Your task to perform on an android device: stop showing notifications on the lock screen Image 0: 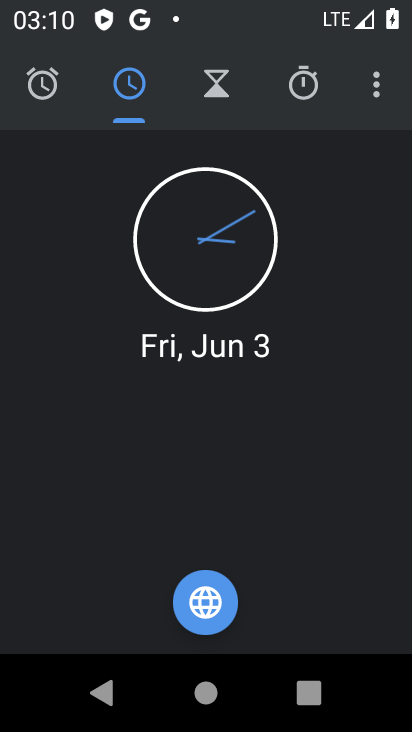
Step 0: press home button
Your task to perform on an android device: stop showing notifications on the lock screen Image 1: 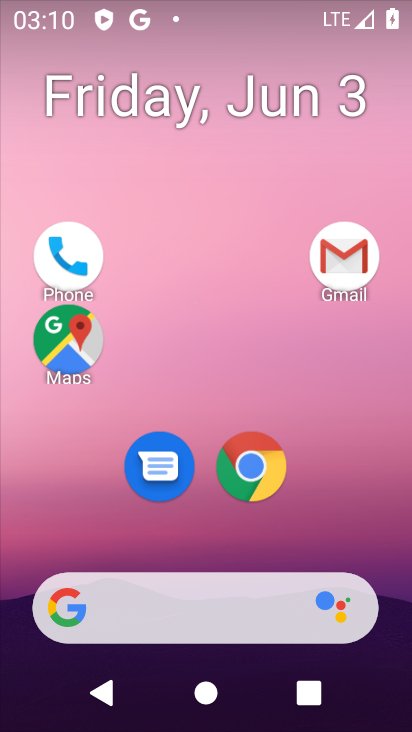
Step 1: drag from (194, 549) to (184, 67)
Your task to perform on an android device: stop showing notifications on the lock screen Image 2: 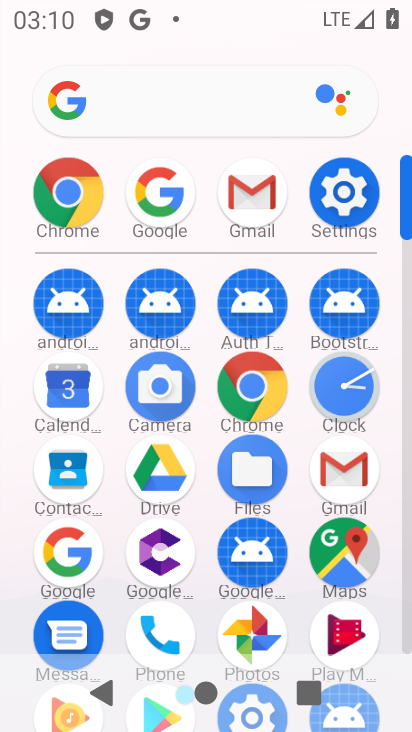
Step 2: click (338, 200)
Your task to perform on an android device: stop showing notifications on the lock screen Image 3: 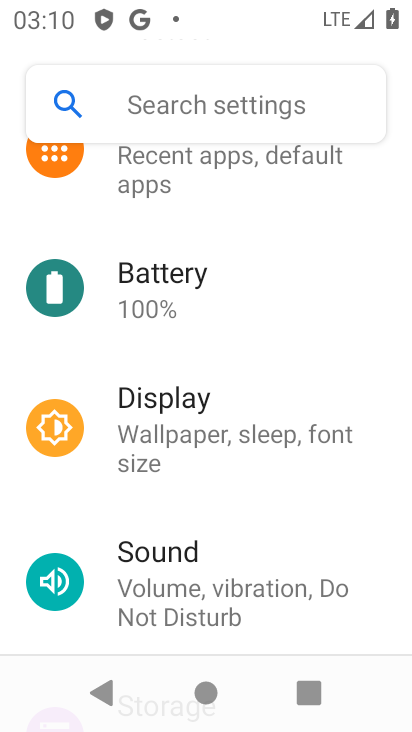
Step 3: drag from (312, 250) to (282, 627)
Your task to perform on an android device: stop showing notifications on the lock screen Image 4: 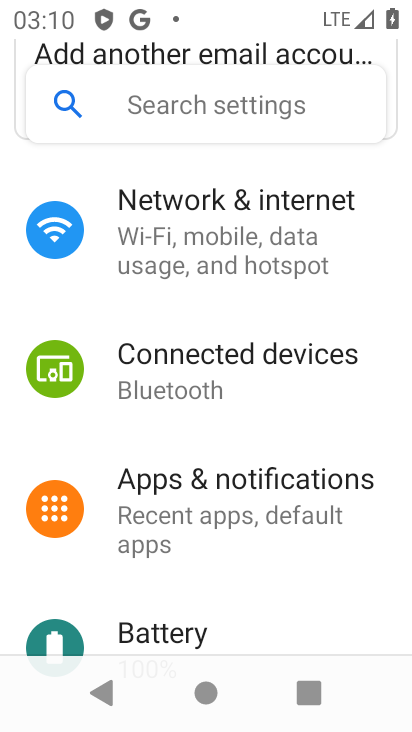
Step 4: click (245, 500)
Your task to perform on an android device: stop showing notifications on the lock screen Image 5: 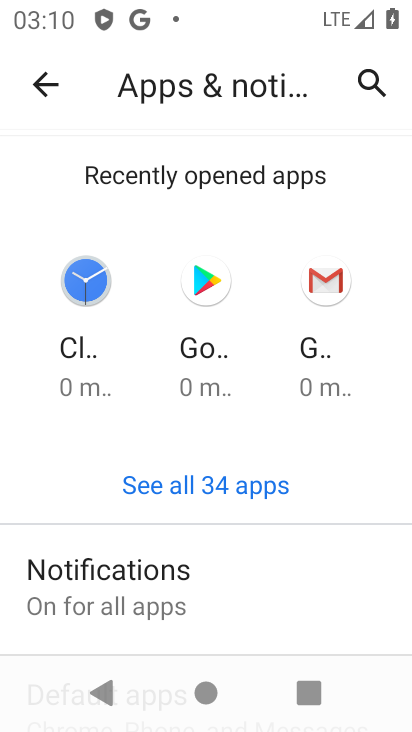
Step 5: click (159, 598)
Your task to perform on an android device: stop showing notifications on the lock screen Image 6: 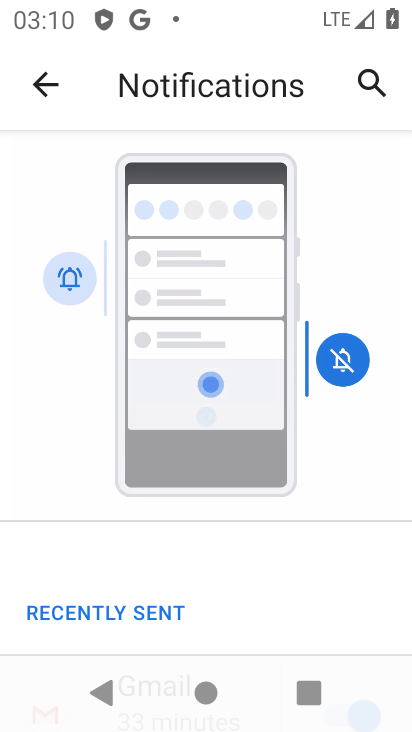
Step 6: drag from (239, 592) to (233, 364)
Your task to perform on an android device: stop showing notifications on the lock screen Image 7: 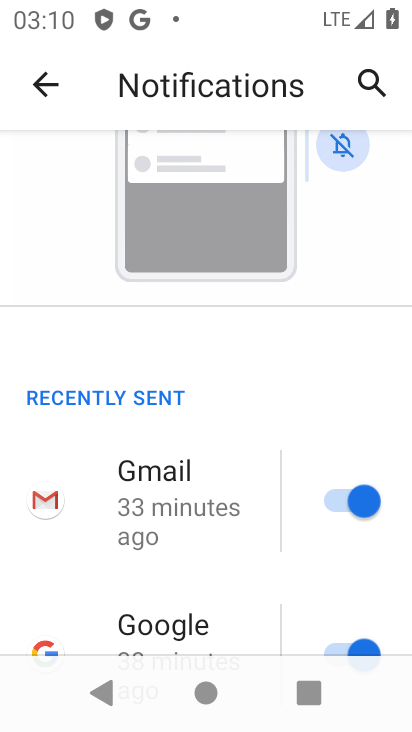
Step 7: drag from (233, 580) to (228, 314)
Your task to perform on an android device: stop showing notifications on the lock screen Image 8: 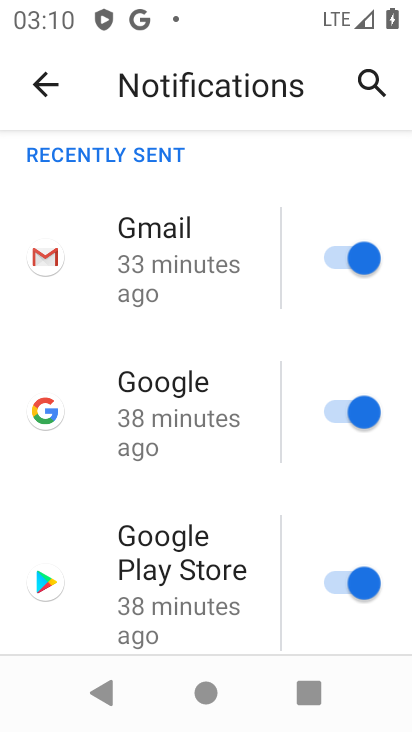
Step 8: drag from (261, 589) to (261, 345)
Your task to perform on an android device: stop showing notifications on the lock screen Image 9: 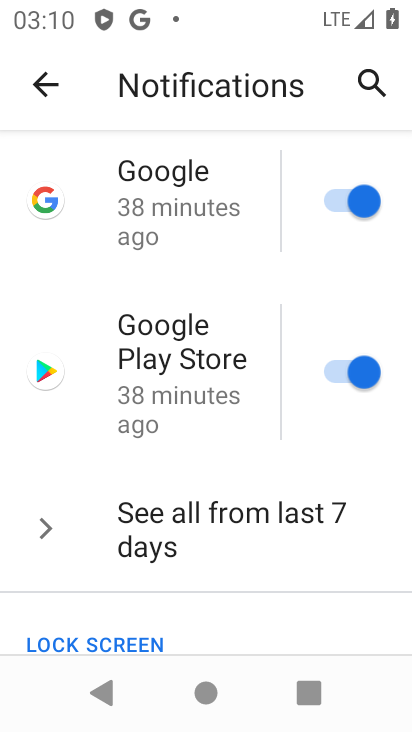
Step 9: drag from (239, 627) to (237, 373)
Your task to perform on an android device: stop showing notifications on the lock screen Image 10: 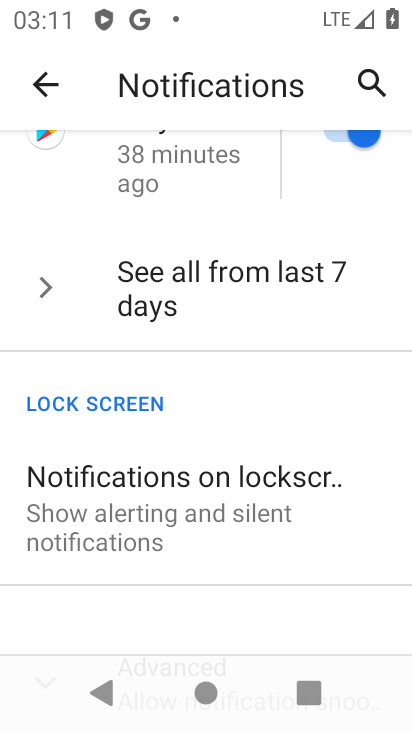
Step 10: drag from (215, 555) to (216, 367)
Your task to perform on an android device: stop showing notifications on the lock screen Image 11: 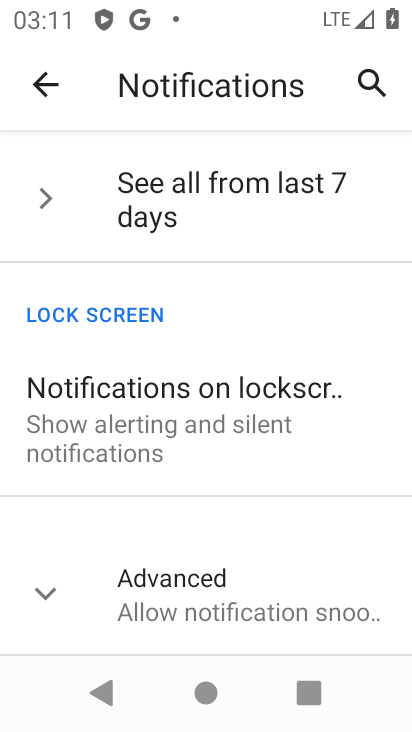
Step 11: click (131, 432)
Your task to perform on an android device: stop showing notifications on the lock screen Image 12: 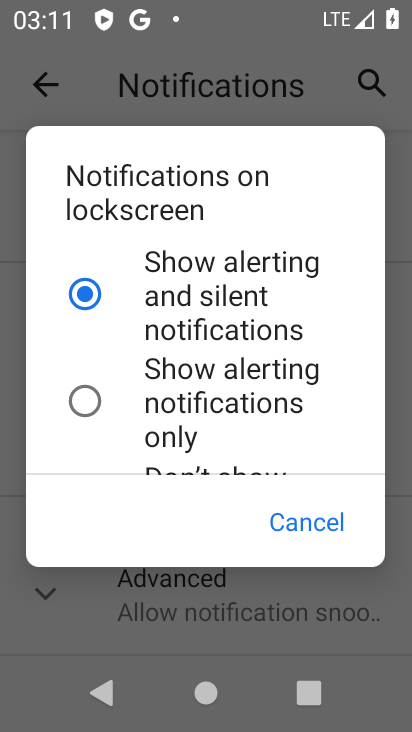
Step 12: drag from (126, 417) to (129, 325)
Your task to perform on an android device: stop showing notifications on the lock screen Image 13: 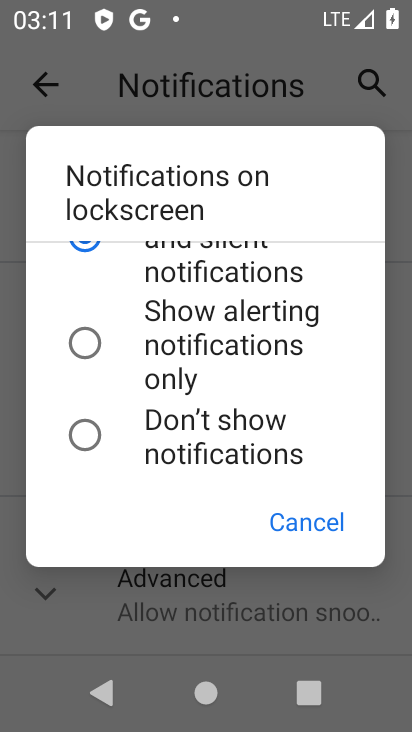
Step 13: click (86, 440)
Your task to perform on an android device: stop showing notifications on the lock screen Image 14: 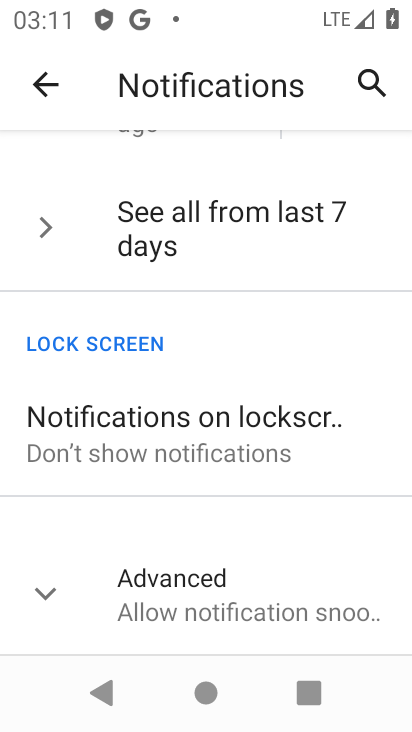
Step 14: task complete